Your task to perform on an android device: manage bookmarks in the chrome app Image 0: 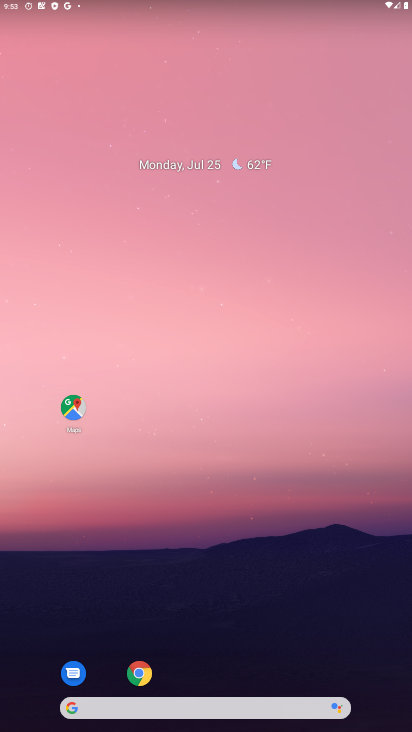
Step 0: drag from (157, 620) to (292, 136)
Your task to perform on an android device: manage bookmarks in the chrome app Image 1: 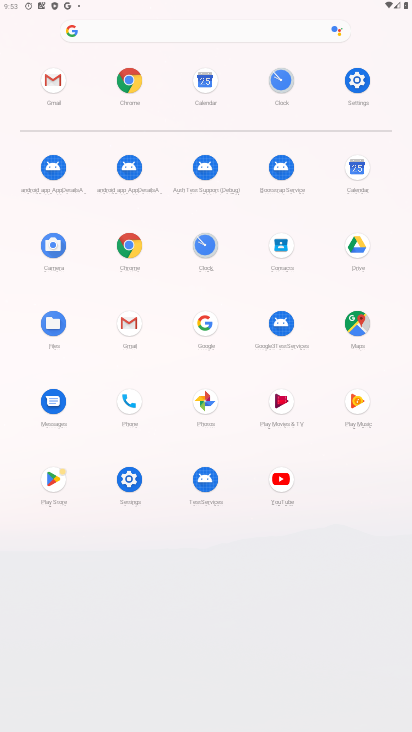
Step 1: click (120, 248)
Your task to perform on an android device: manage bookmarks in the chrome app Image 2: 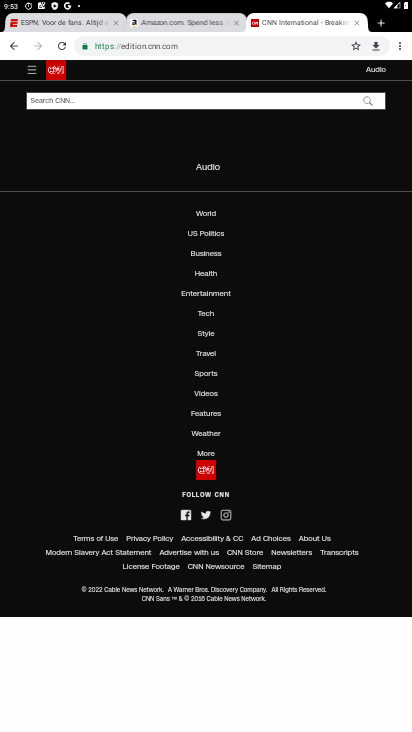
Step 2: drag from (401, 41) to (326, 96)
Your task to perform on an android device: manage bookmarks in the chrome app Image 3: 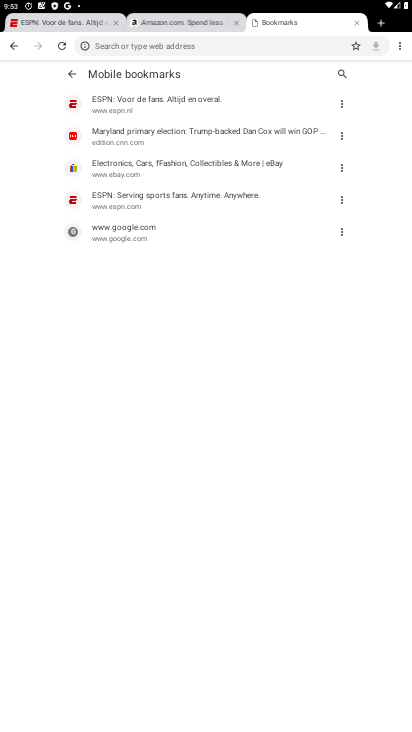
Step 3: click (342, 172)
Your task to perform on an android device: manage bookmarks in the chrome app Image 4: 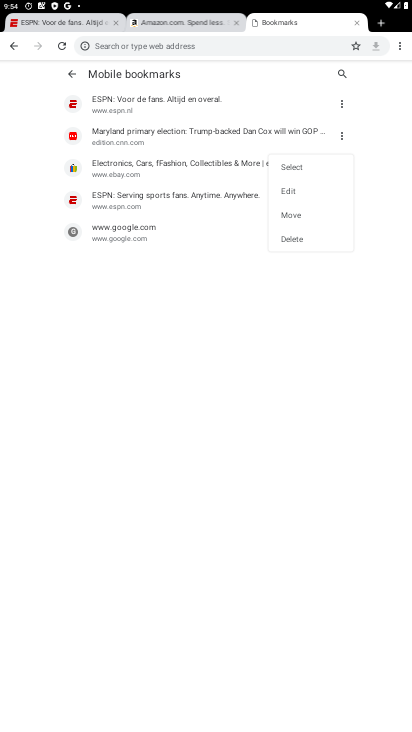
Step 4: click (291, 235)
Your task to perform on an android device: manage bookmarks in the chrome app Image 5: 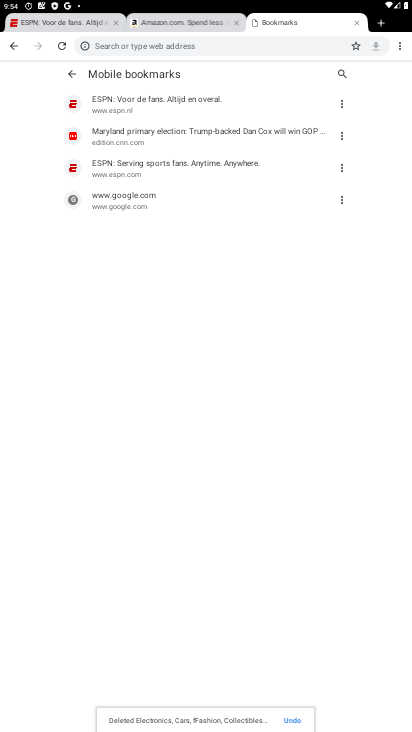
Step 5: task complete